Your task to perform on an android device: choose inbox layout in the gmail app Image 0: 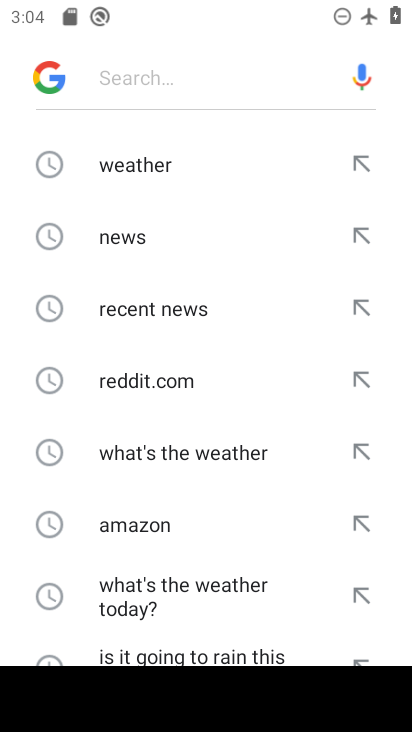
Step 0: press home button
Your task to perform on an android device: choose inbox layout in the gmail app Image 1: 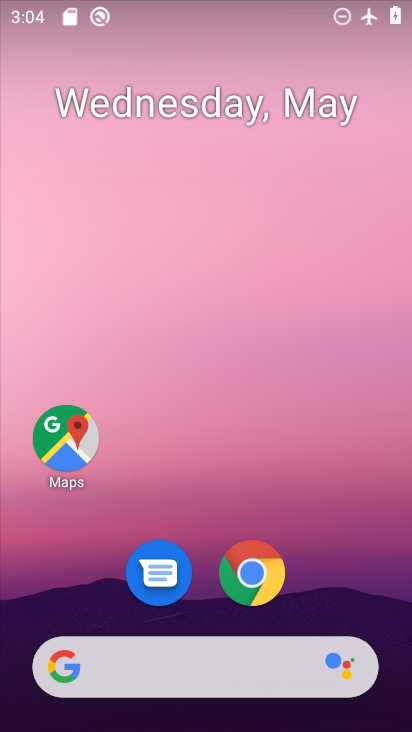
Step 1: drag from (312, 535) to (336, 134)
Your task to perform on an android device: choose inbox layout in the gmail app Image 2: 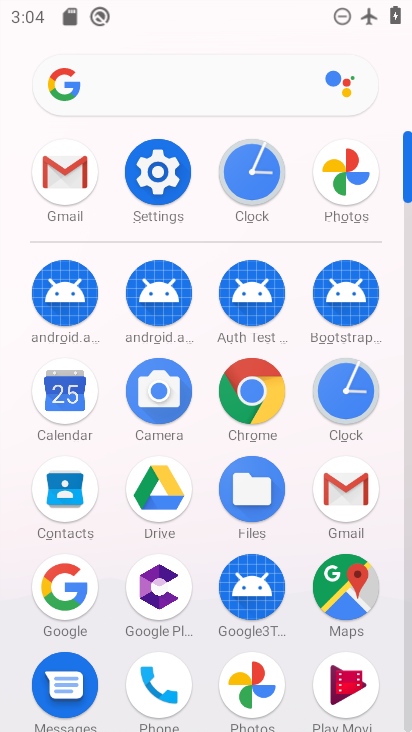
Step 2: click (341, 499)
Your task to perform on an android device: choose inbox layout in the gmail app Image 3: 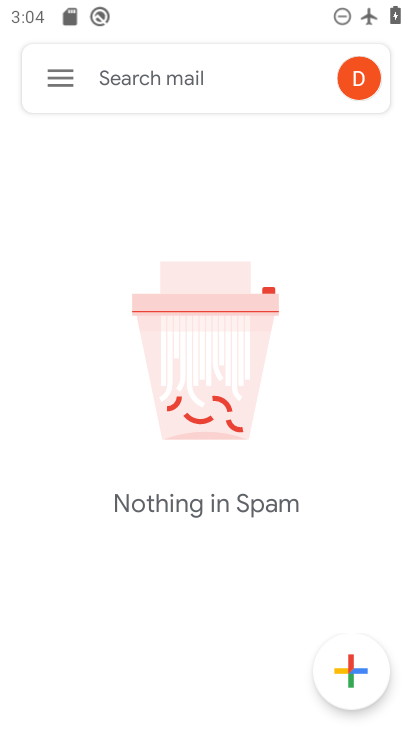
Step 3: click (71, 81)
Your task to perform on an android device: choose inbox layout in the gmail app Image 4: 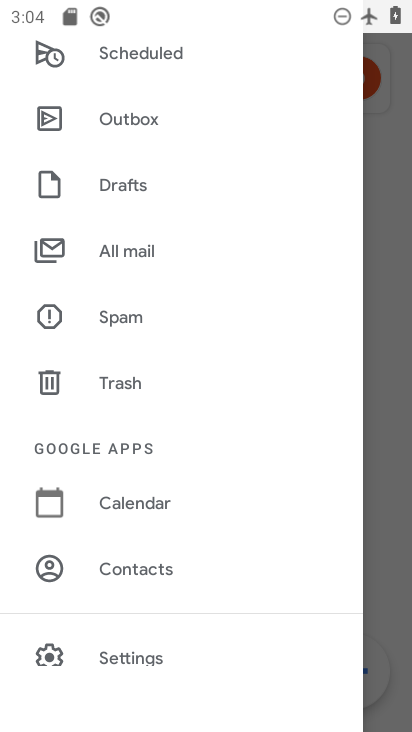
Step 4: click (138, 648)
Your task to perform on an android device: choose inbox layout in the gmail app Image 5: 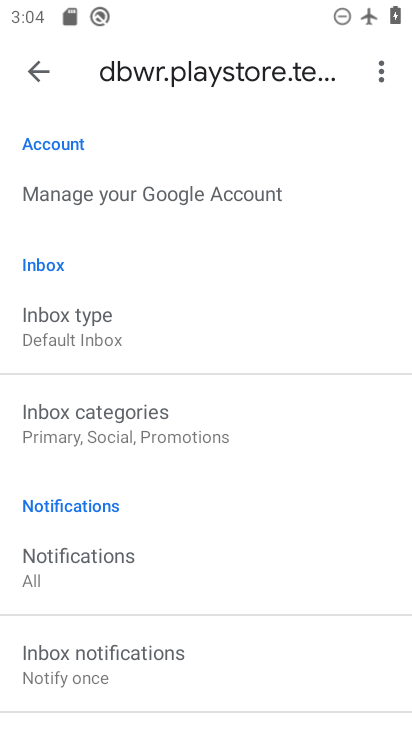
Step 5: click (100, 332)
Your task to perform on an android device: choose inbox layout in the gmail app Image 6: 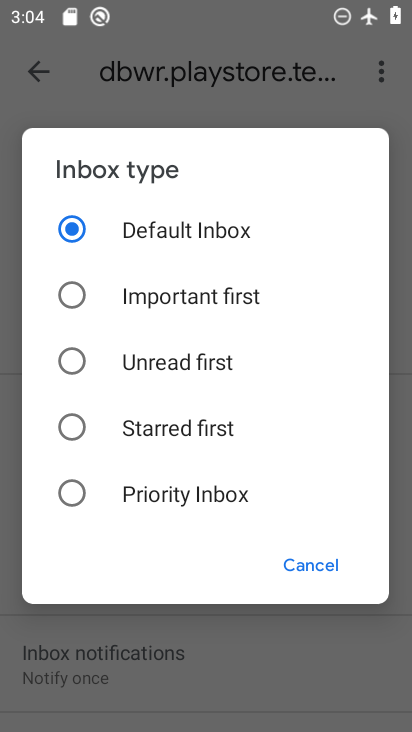
Step 6: click (177, 497)
Your task to perform on an android device: choose inbox layout in the gmail app Image 7: 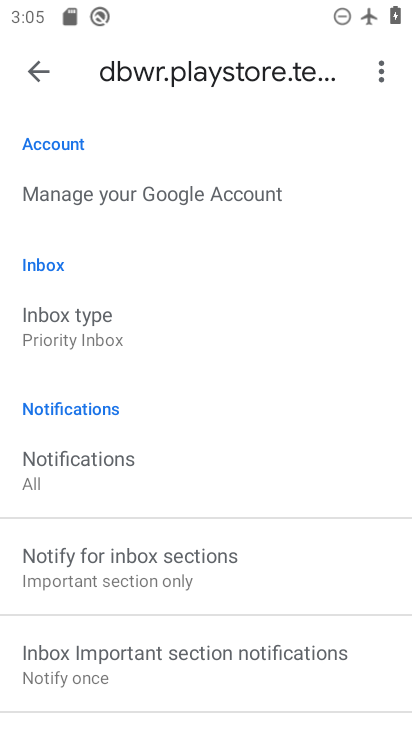
Step 7: task complete